Your task to perform on an android device: Search for Mexican restaurants on Maps Image 0: 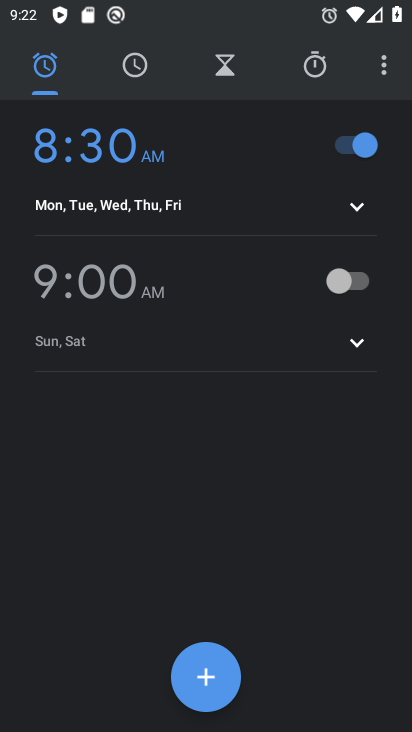
Step 0: press home button
Your task to perform on an android device: Search for Mexican restaurants on Maps Image 1: 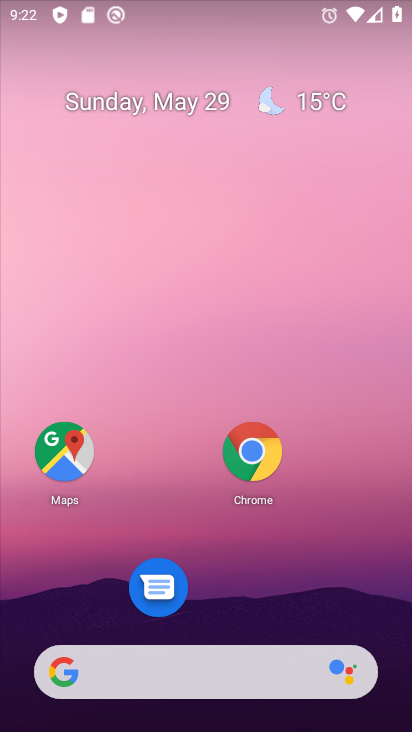
Step 1: click (53, 468)
Your task to perform on an android device: Search for Mexican restaurants on Maps Image 2: 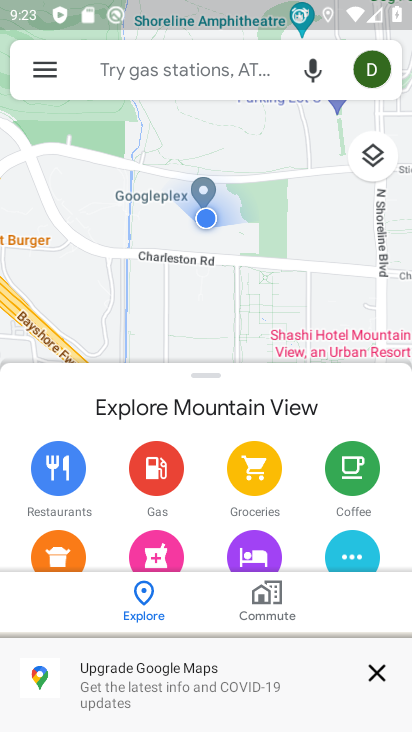
Step 2: click (233, 61)
Your task to perform on an android device: Search for Mexican restaurants on Maps Image 3: 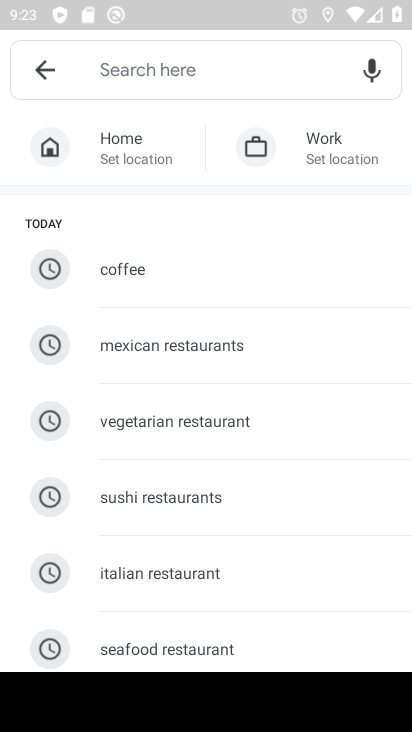
Step 3: click (203, 361)
Your task to perform on an android device: Search for Mexican restaurants on Maps Image 4: 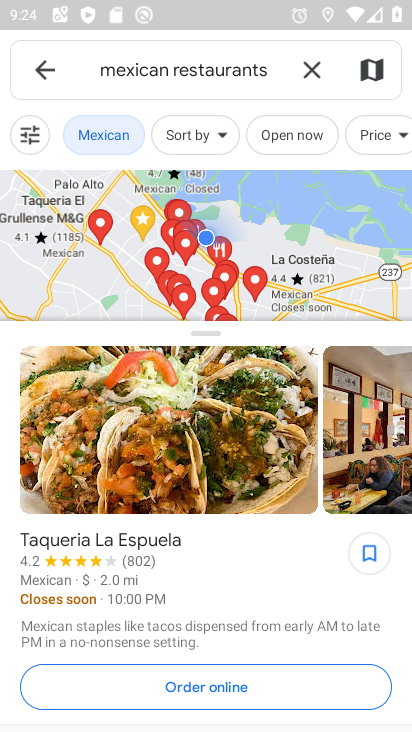
Step 4: task complete